Your task to perform on an android device: Go to Wikipedia Image 0: 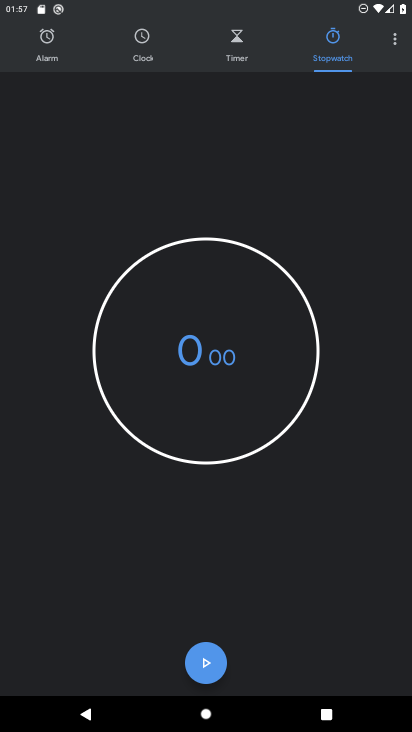
Step 0: press home button
Your task to perform on an android device: Go to Wikipedia Image 1: 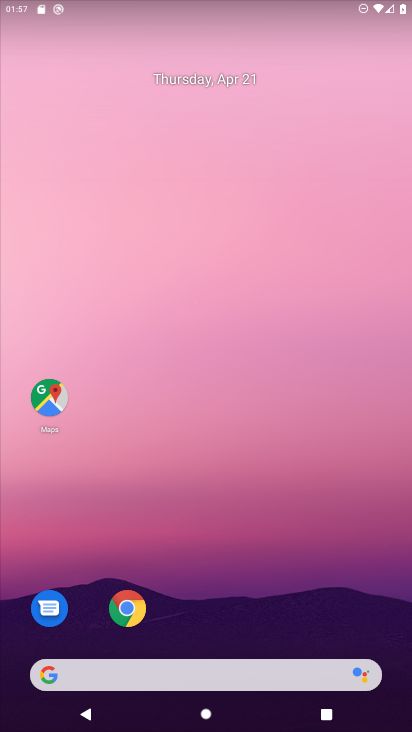
Step 1: drag from (219, 559) to (203, 153)
Your task to perform on an android device: Go to Wikipedia Image 2: 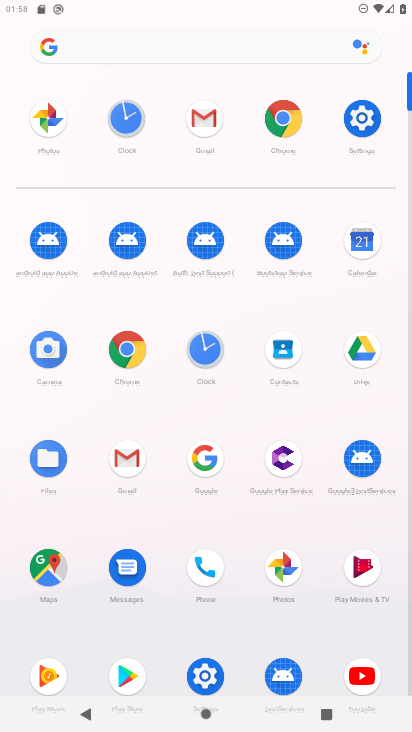
Step 2: click (279, 103)
Your task to perform on an android device: Go to Wikipedia Image 3: 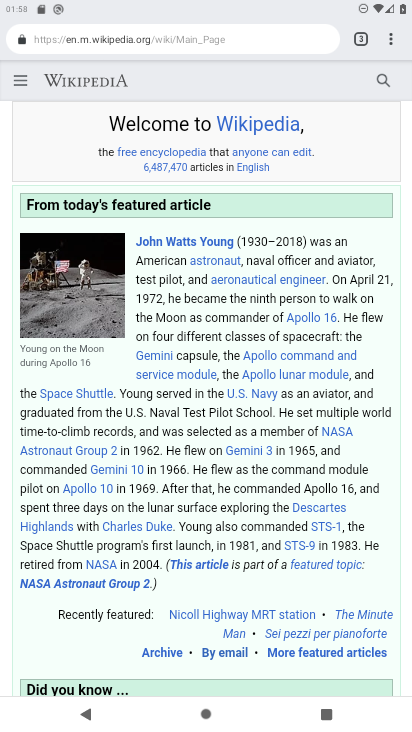
Step 3: click (388, 42)
Your task to perform on an android device: Go to Wikipedia Image 4: 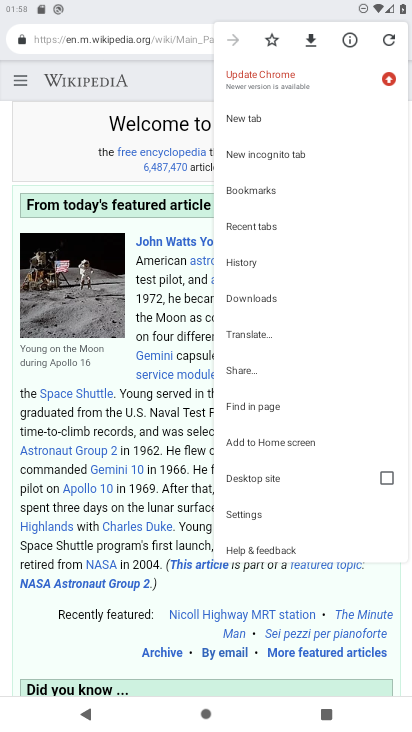
Step 4: click (266, 116)
Your task to perform on an android device: Go to Wikipedia Image 5: 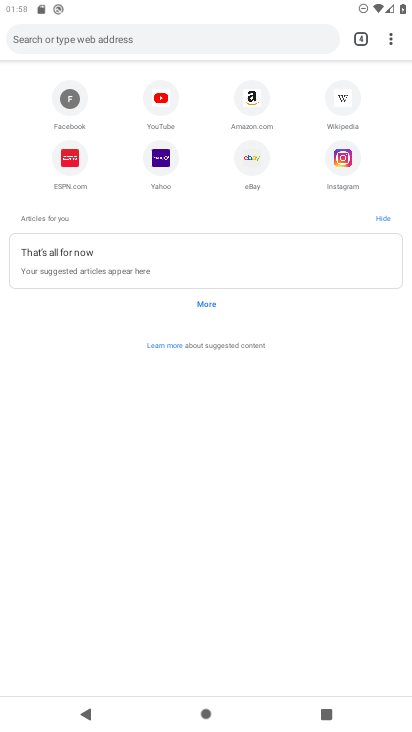
Step 5: click (343, 93)
Your task to perform on an android device: Go to Wikipedia Image 6: 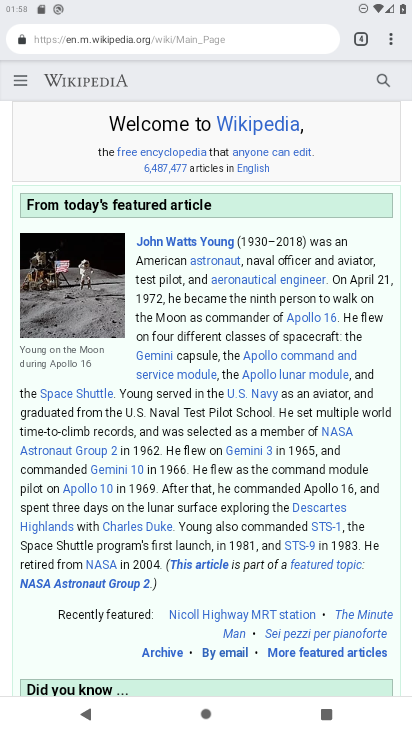
Step 6: task complete